Your task to perform on an android device: Open the calendar and show me this week's events? Image 0: 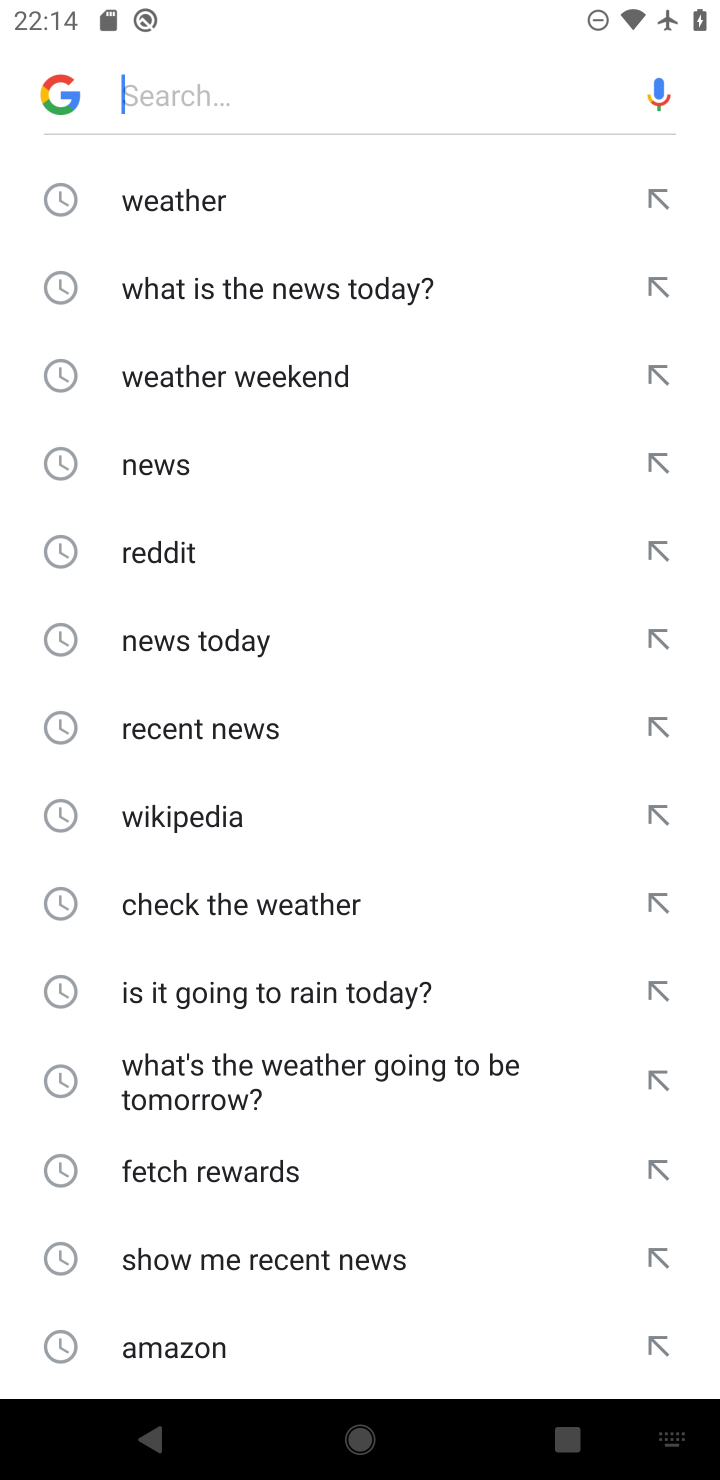
Step 0: press home button
Your task to perform on an android device: Open the calendar and show me this week's events? Image 1: 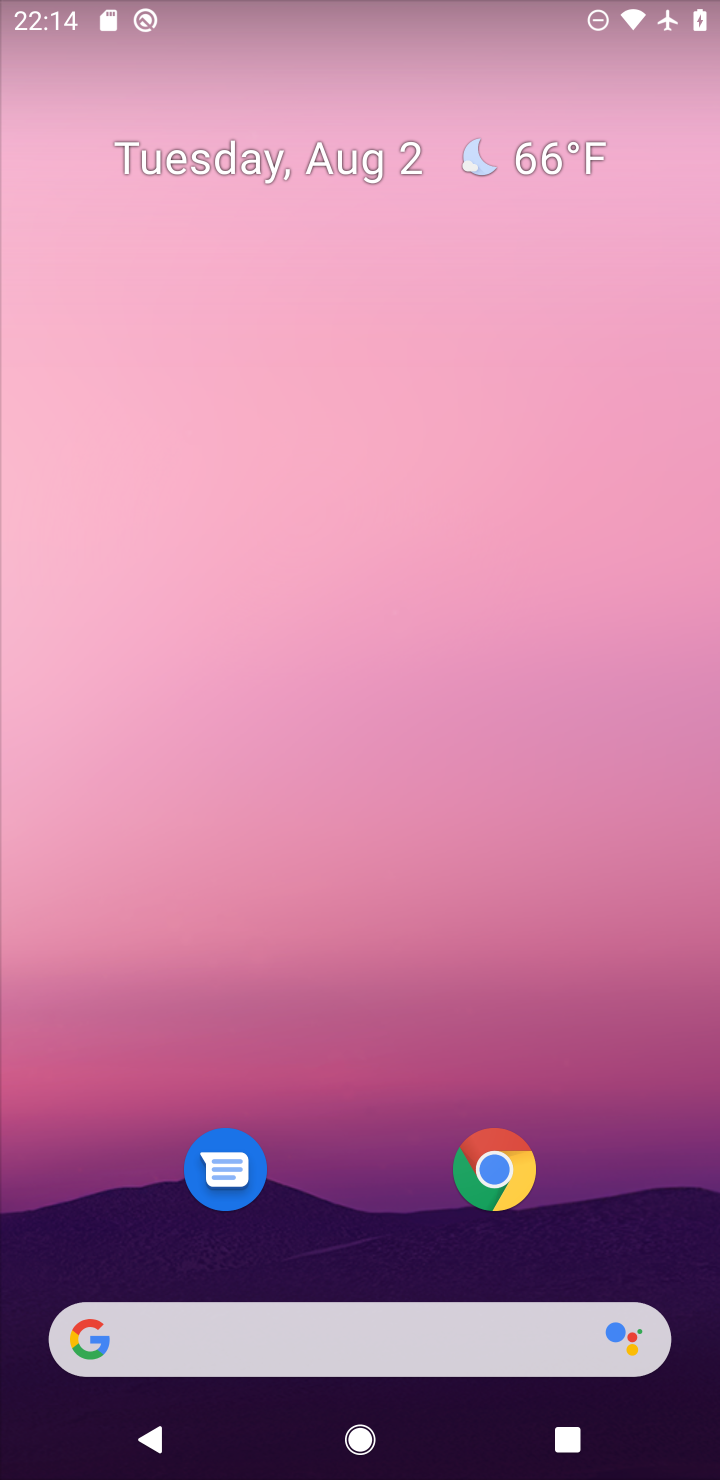
Step 1: drag from (345, 1130) to (335, 68)
Your task to perform on an android device: Open the calendar and show me this week's events? Image 2: 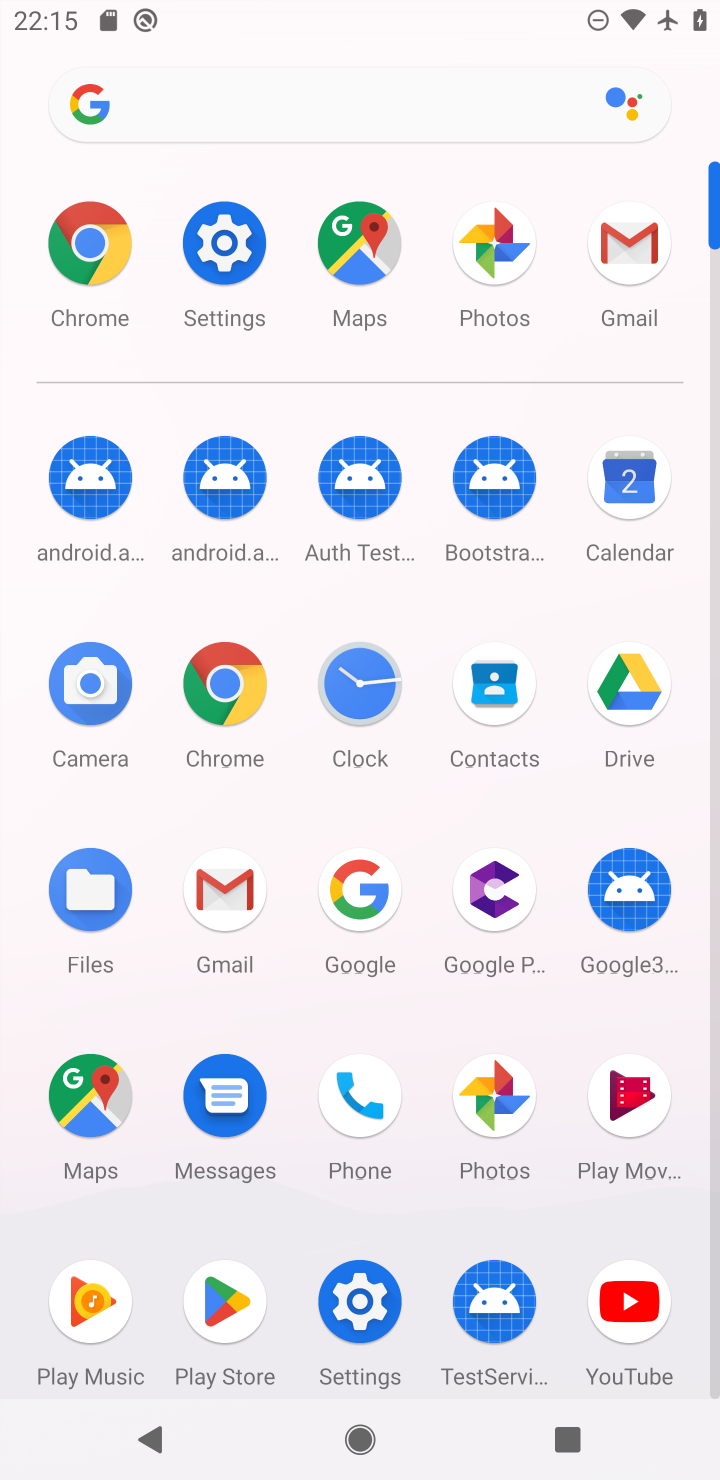
Step 2: click (632, 487)
Your task to perform on an android device: Open the calendar and show me this week's events? Image 3: 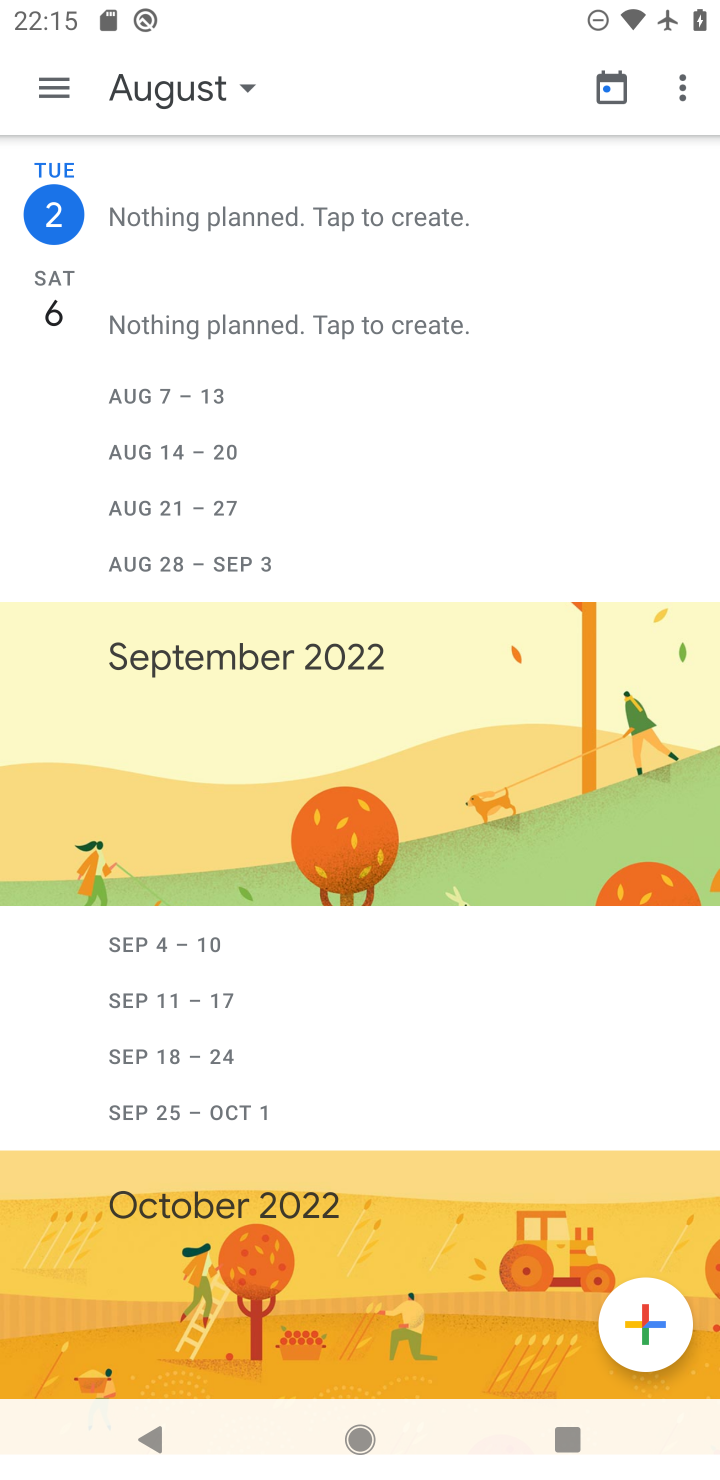
Step 3: click (52, 80)
Your task to perform on an android device: Open the calendar and show me this week's events? Image 4: 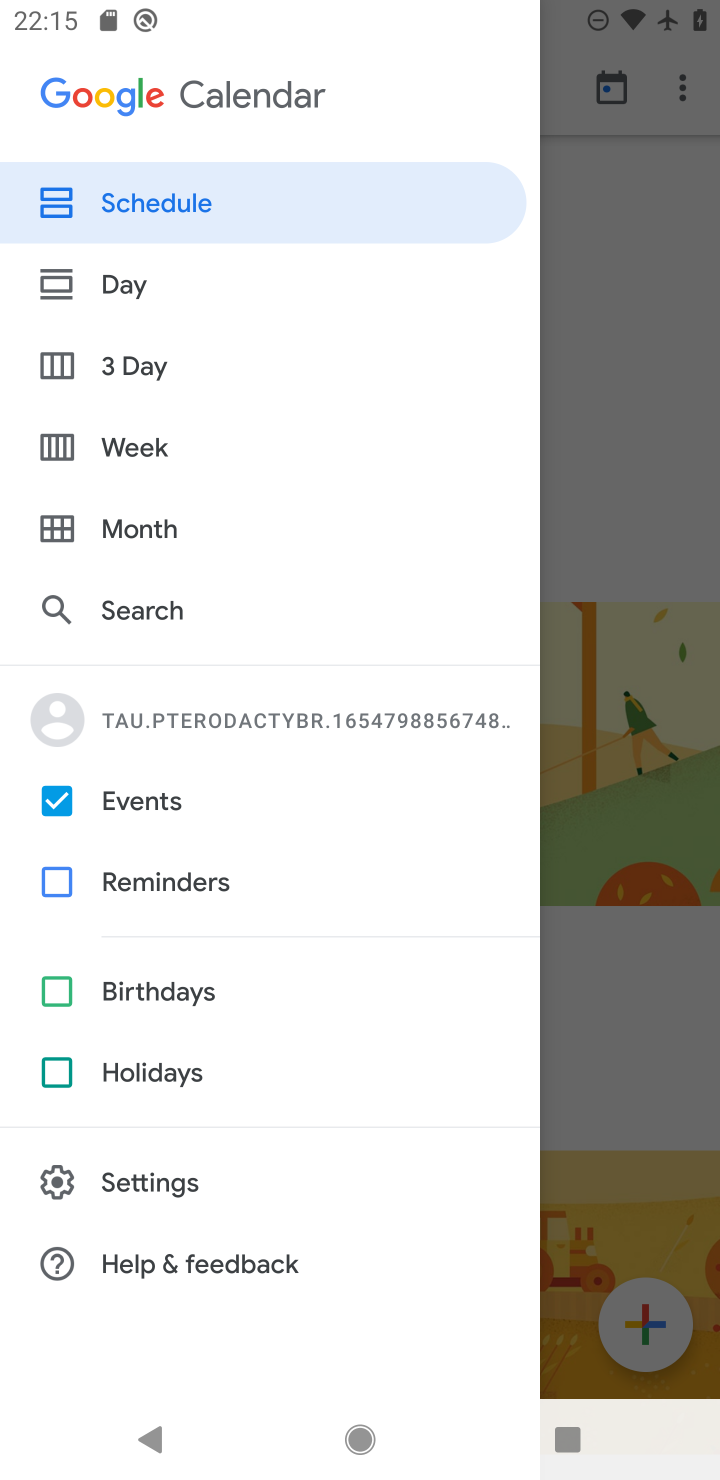
Step 4: click (150, 447)
Your task to perform on an android device: Open the calendar and show me this week's events? Image 5: 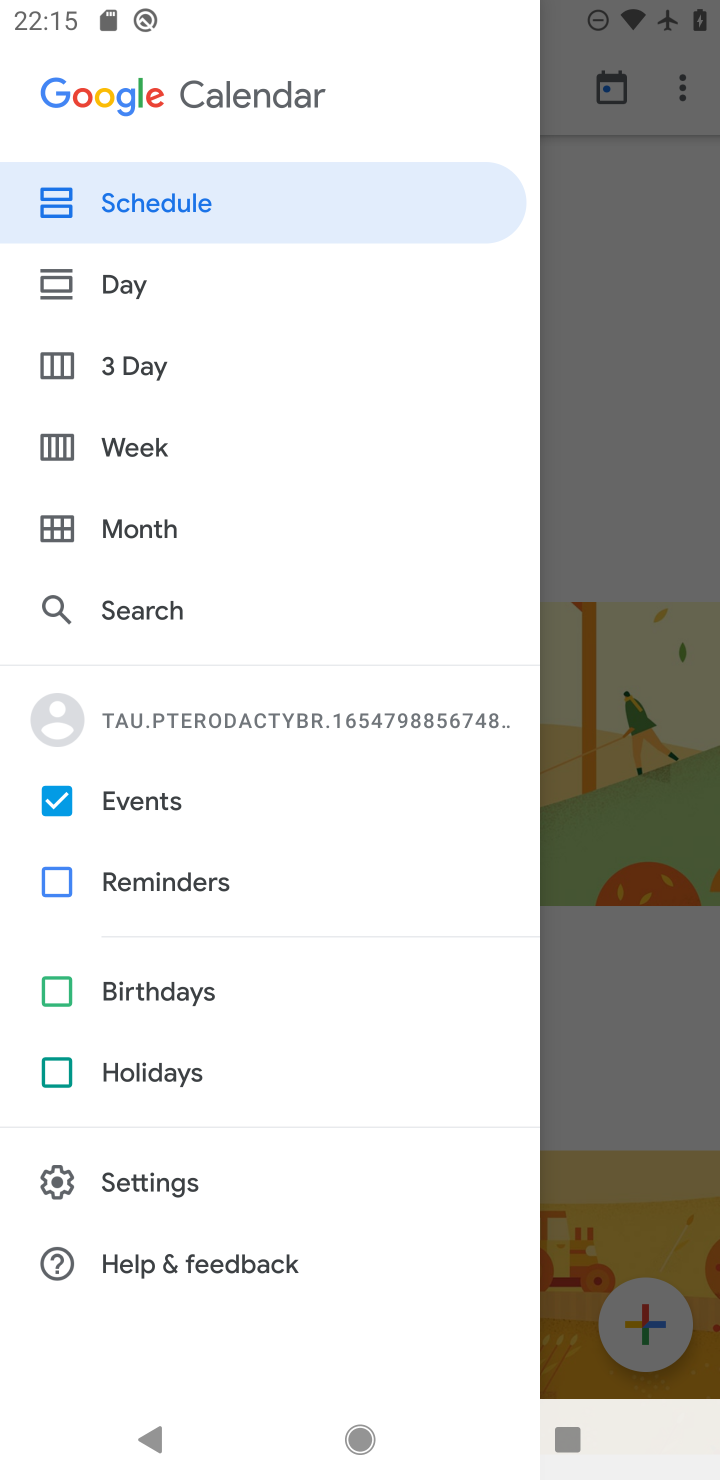
Step 5: click (150, 447)
Your task to perform on an android device: Open the calendar and show me this week's events? Image 6: 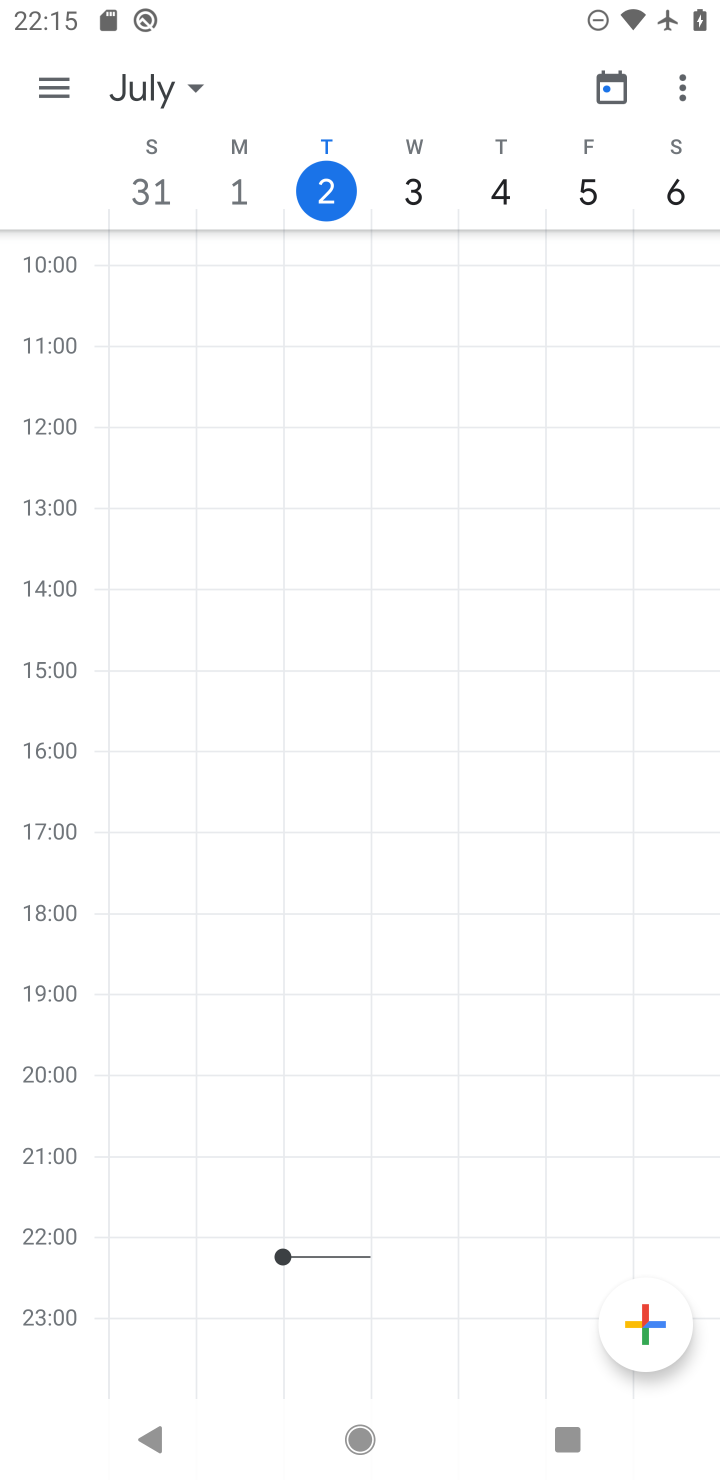
Step 6: task complete